Your task to perform on an android device: Go to internet settings Image 0: 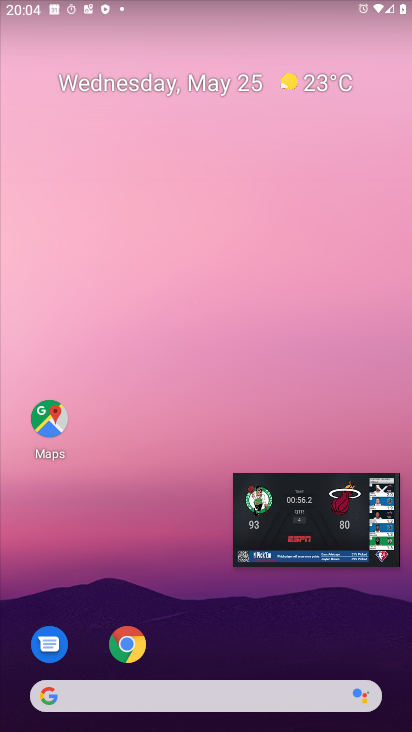
Step 0: click (380, 448)
Your task to perform on an android device: Go to internet settings Image 1: 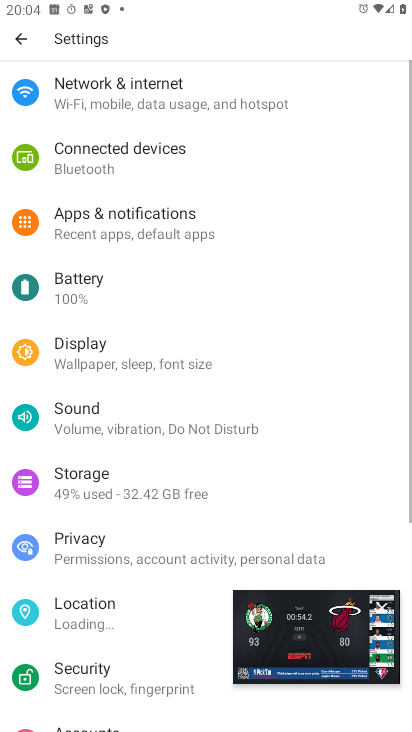
Step 1: click (376, 608)
Your task to perform on an android device: Go to internet settings Image 2: 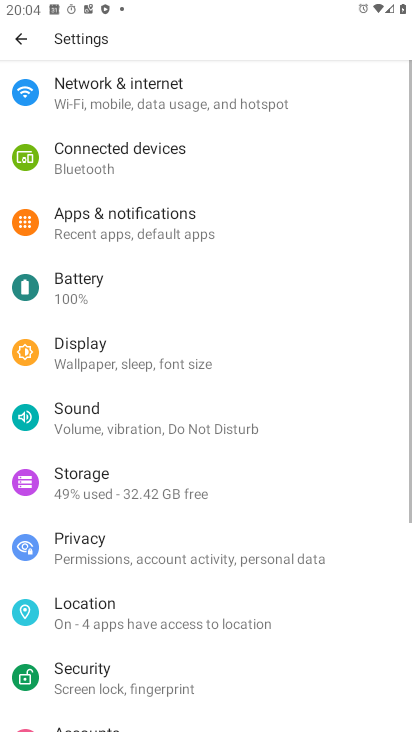
Step 2: press home button
Your task to perform on an android device: Go to internet settings Image 3: 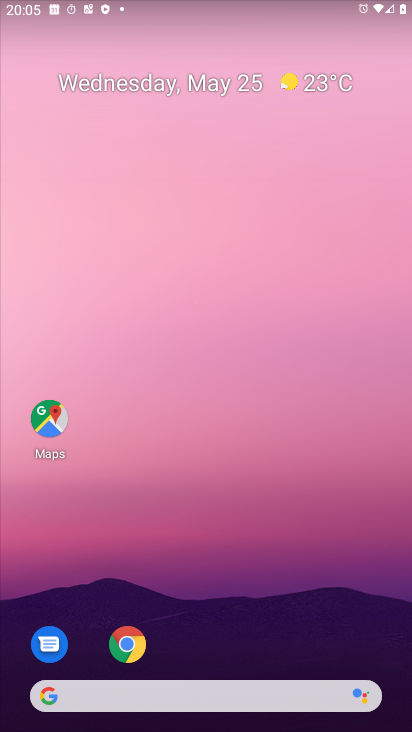
Step 3: drag from (283, 717) to (201, 198)
Your task to perform on an android device: Go to internet settings Image 4: 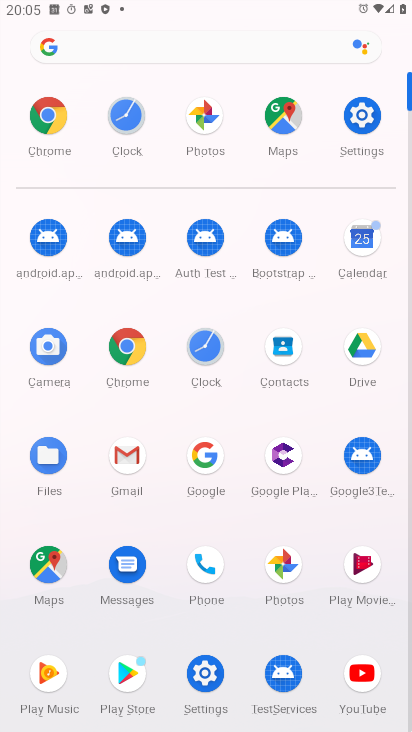
Step 4: click (365, 128)
Your task to perform on an android device: Go to internet settings Image 5: 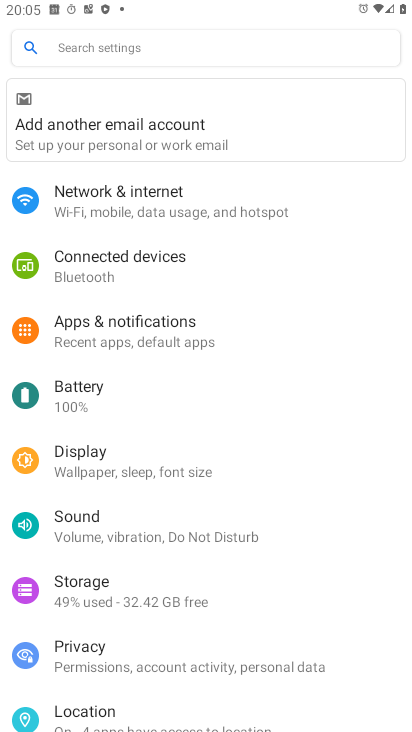
Step 5: click (193, 195)
Your task to perform on an android device: Go to internet settings Image 6: 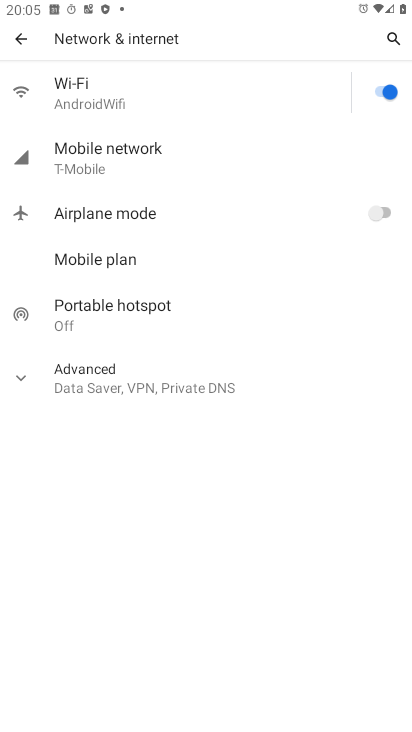
Step 6: task complete